Your task to perform on an android device: Search for a new highlighter Image 0: 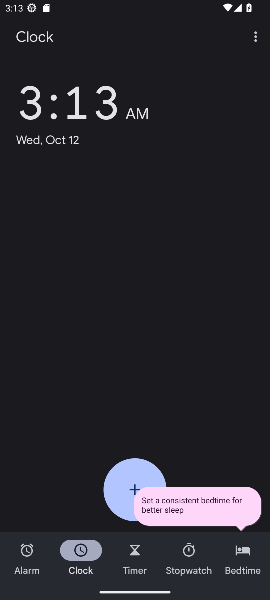
Step 0: press home button
Your task to perform on an android device: Search for a new highlighter Image 1: 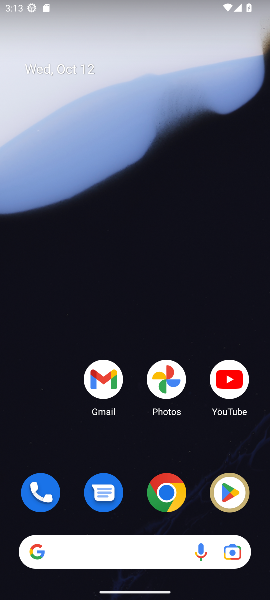
Step 1: click (163, 498)
Your task to perform on an android device: Search for a new highlighter Image 2: 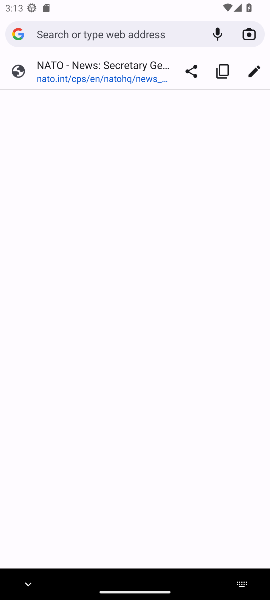
Step 2: click (79, 36)
Your task to perform on an android device: Search for a new highlighter Image 3: 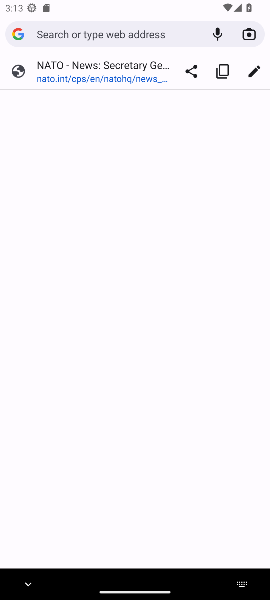
Step 3: type "new highlighter"
Your task to perform on an android device: Search for a new highlighter Image 4: 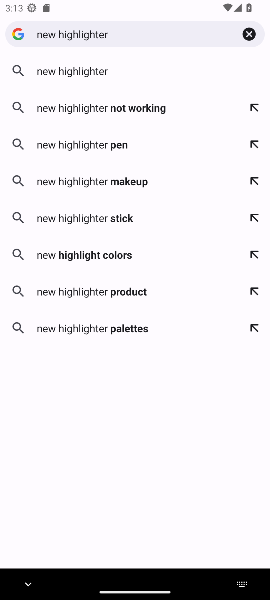
Step 4: click (64, 70)
Your task to perform on an android device: Search for a new highlighter Image 5: 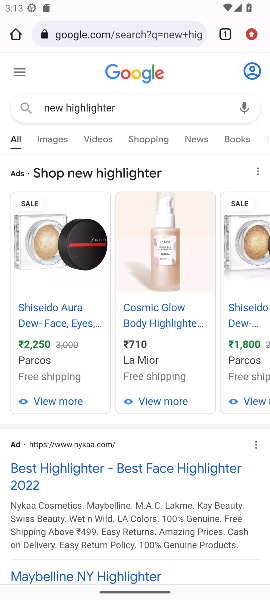
Step 5: task complete